Your task to perform on an android device: Open ESPN.com Image 0: 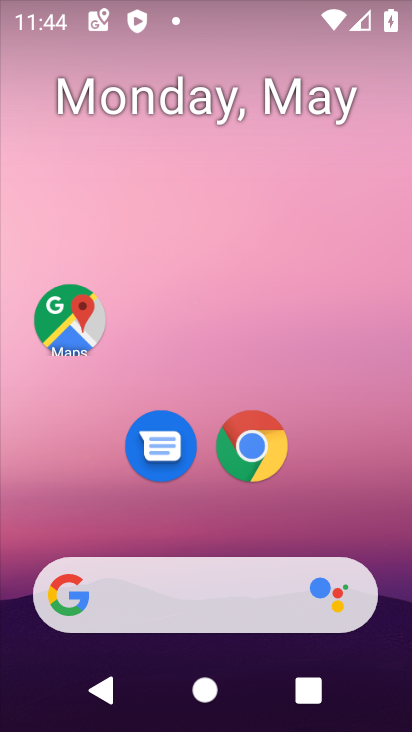
Step 0: click (253, 444)
Your task to perform on an android device: Open ESPN.com Image 1: 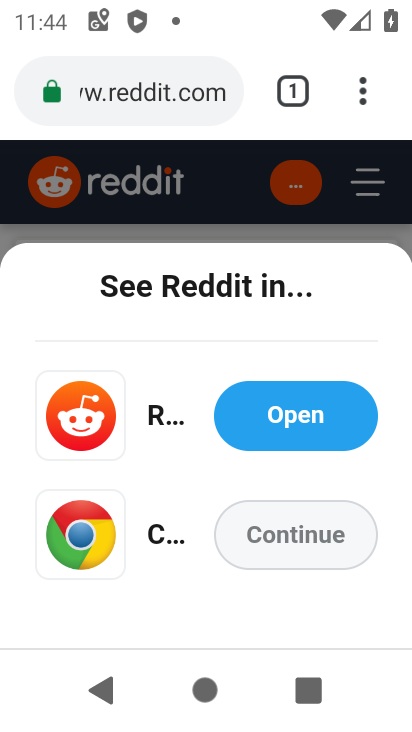
Step 1: press home button
Your task to perform on an android device: Open ESPN.com Image 2: 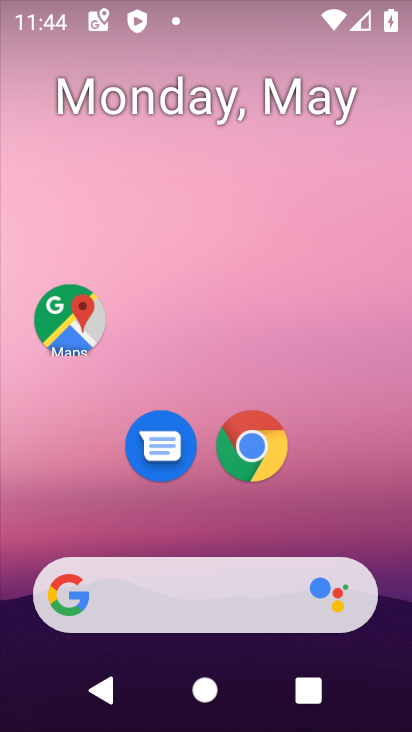
Step 2: drag from (329, 454) to (321, 181)
Your task to perform on an android device: Open ESPN.com Image 3: 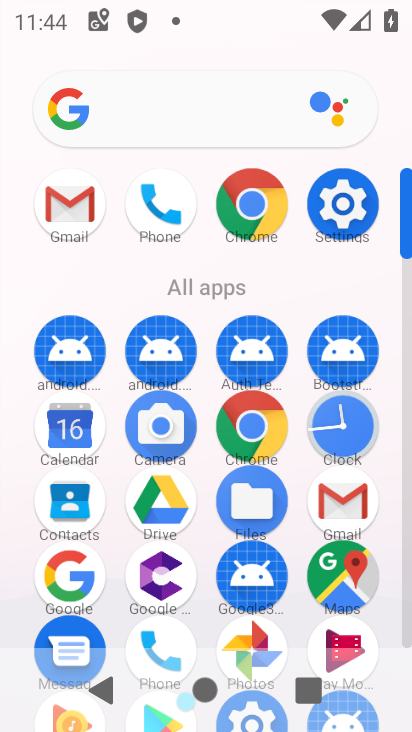
Step 3: click (252, 432)
Your task to perform on an android device: Open ESPN.com Image 4: 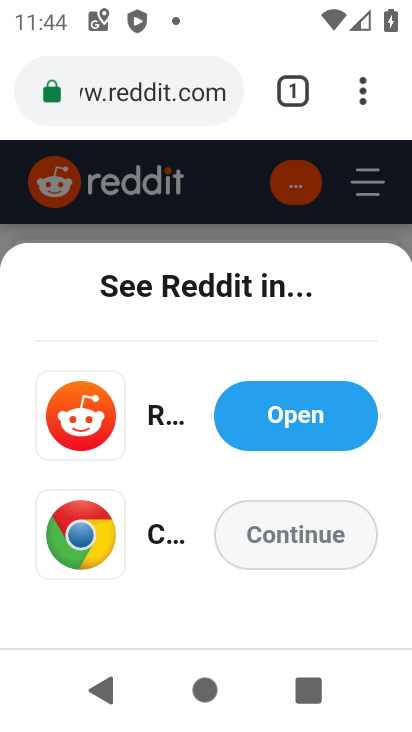
Step 4: click (349, 92)
Your task to perform on an android device: Open ESPN.com Image 5: 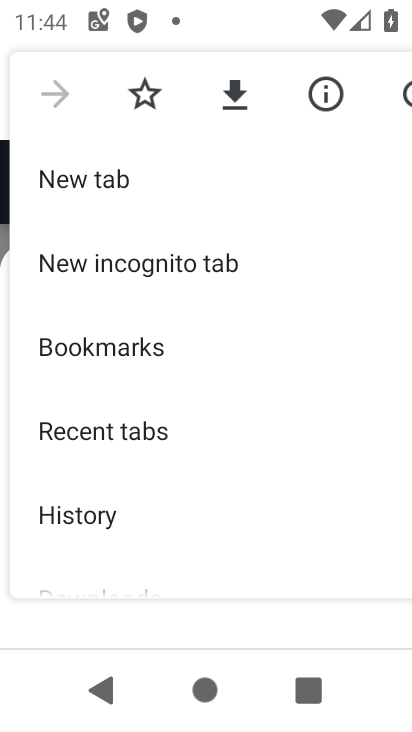
Step 5: click (81, 171)
Your task to perform on an android device: Open ESPN.com Image 6: 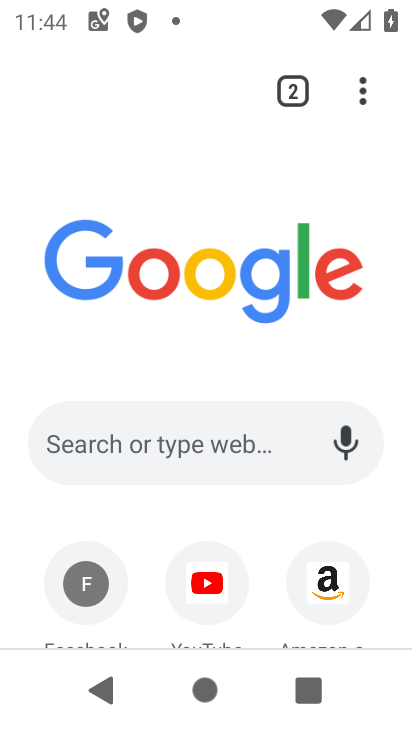
Step 6: drag from (187, 530) to (230, 268)
Your task to perform on an android device: Open ESPN.com Image 7: 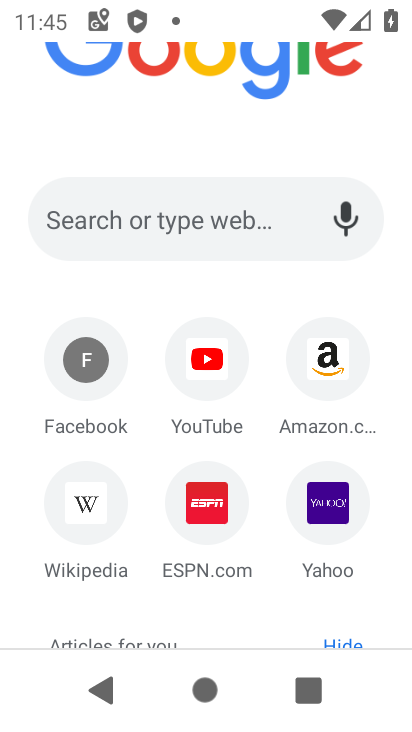
Step 7: click (197, 484)
Your task to perform on an android device: Open ESPN.com Image 8: 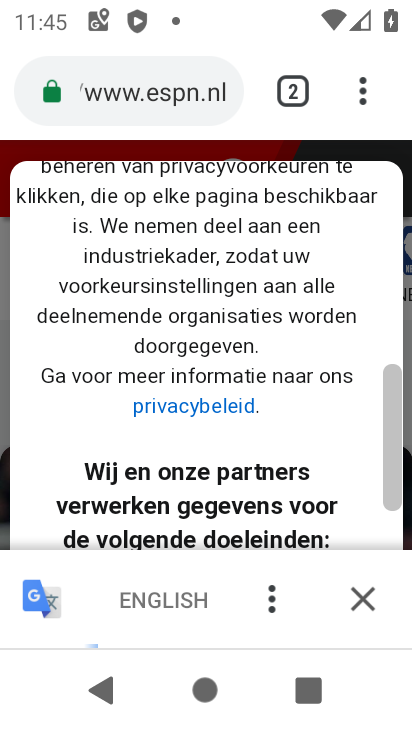
Step 8: click (362, 594)
Your task to perform on an android device: Open ESPN.com Image 9: 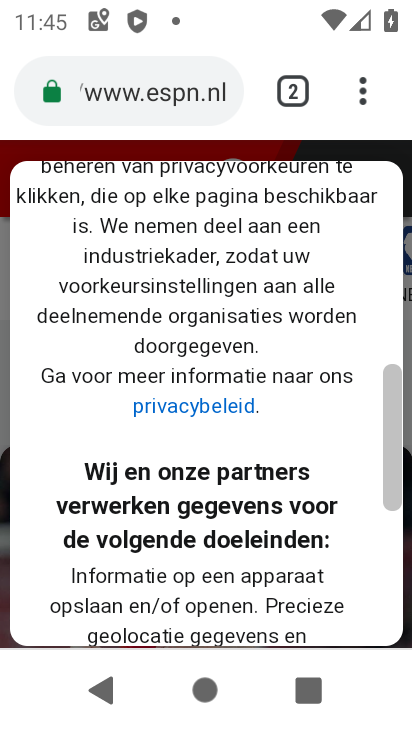
Step 9: task complete